Your task to perform on an android device: Search for seafood restaurants on Google Maps Image 0: 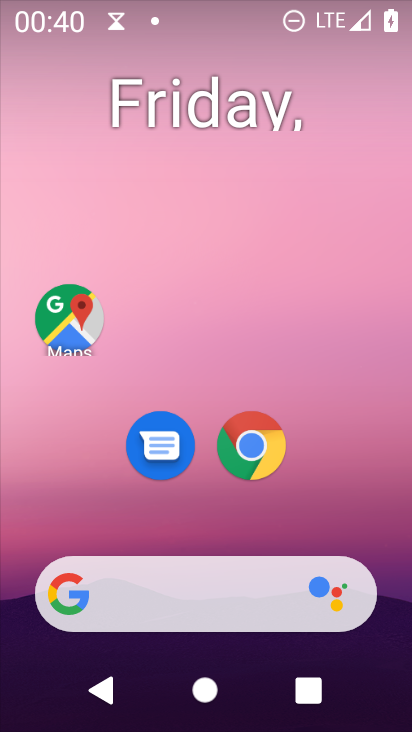
Step 0: drag from (221, 728) to (227, 5)
Your task to perform on an android device: Search for seafood restaurants on Google Maps Image 1: 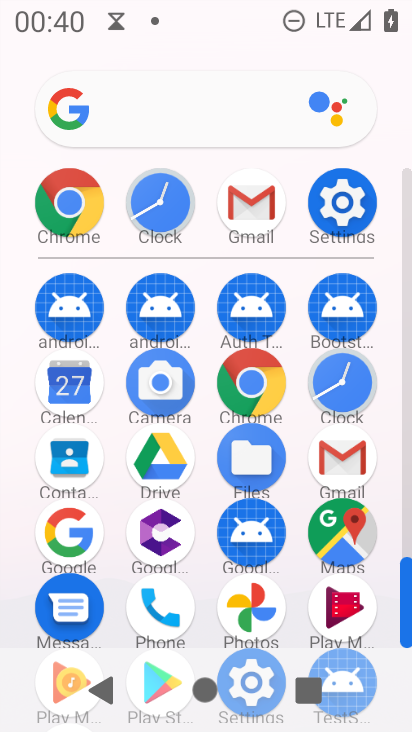
Step 1: click (337, 527)
Your task to perform on an android device: Search for seafood restaurants on Google Maps Image 2: 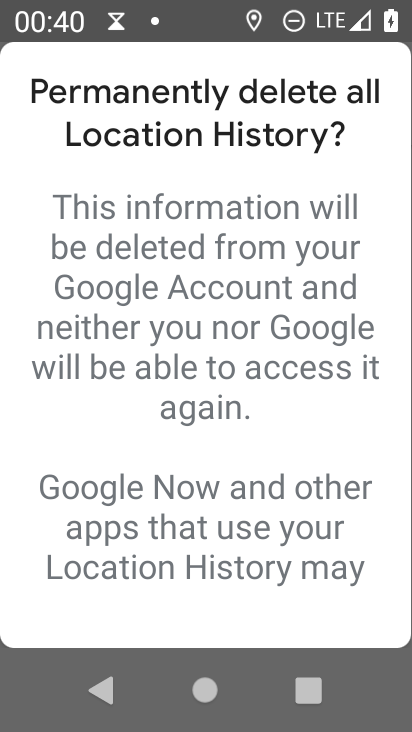
Step 2: press back button
Your task to perform on an android device: Search for seafood restaurants on Google Maps Image 3: 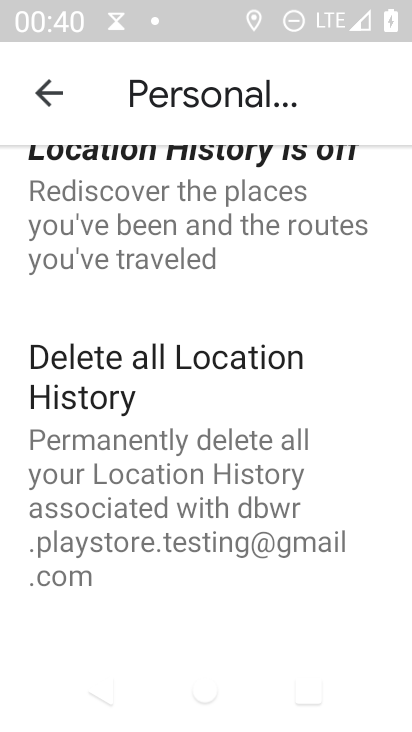
Step 3: click (56, 94)
Your task to perform on an android device: Search for seafood restaurants on Google Maps Image 4: 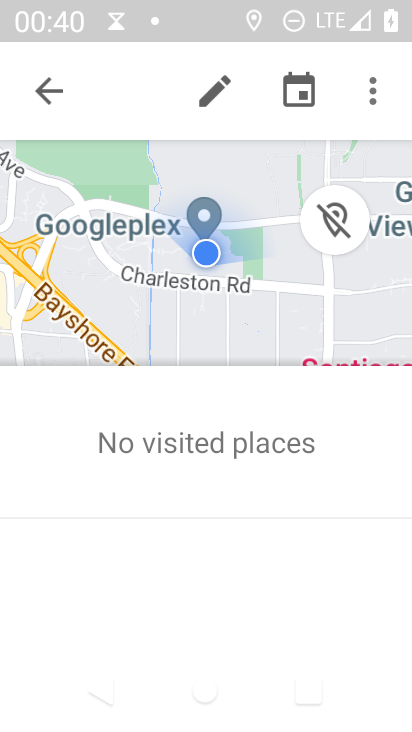
Step 4: click (51, 93)
Your task to perform on an android device: Search for seafood restaurants on Google Maps Image 5: 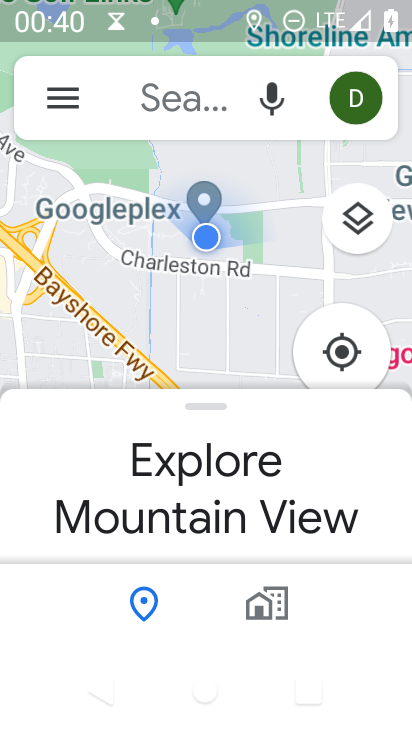
Step 5: click (201, 91)
Your task to perform on an android device: Search for seafood restaurants on Google Maps Image 6: 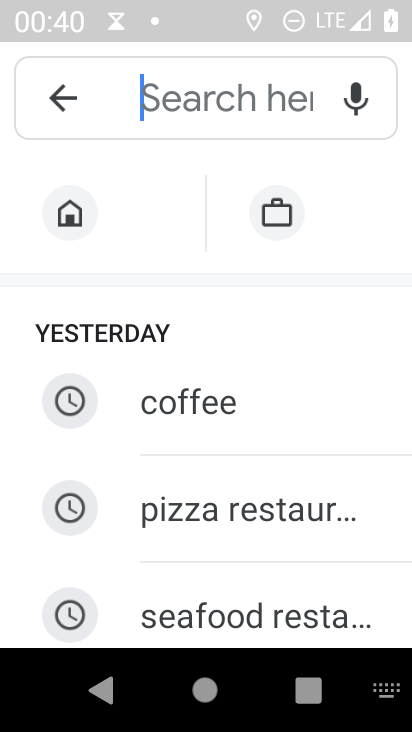
Step 6: type "seafood restaurants"
Your task to perform on an android device: Search for seafood restaurants on Google Maps Image 7: 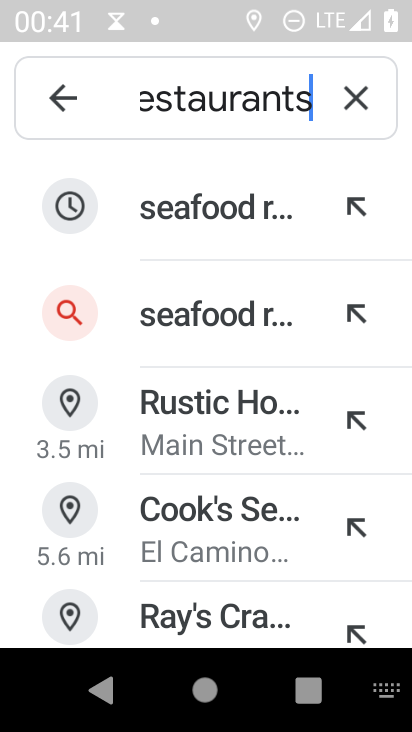
Step 7: click (197, 210)
Your task to perform on an android device: Search for seafood restaurants on Google Maps Image 8: 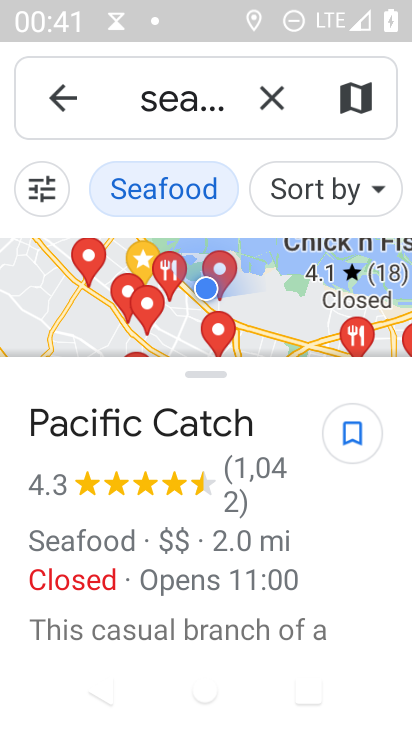
Step 8: task complete